Your task to perform on an android device: empty trash in google photos Image 0: 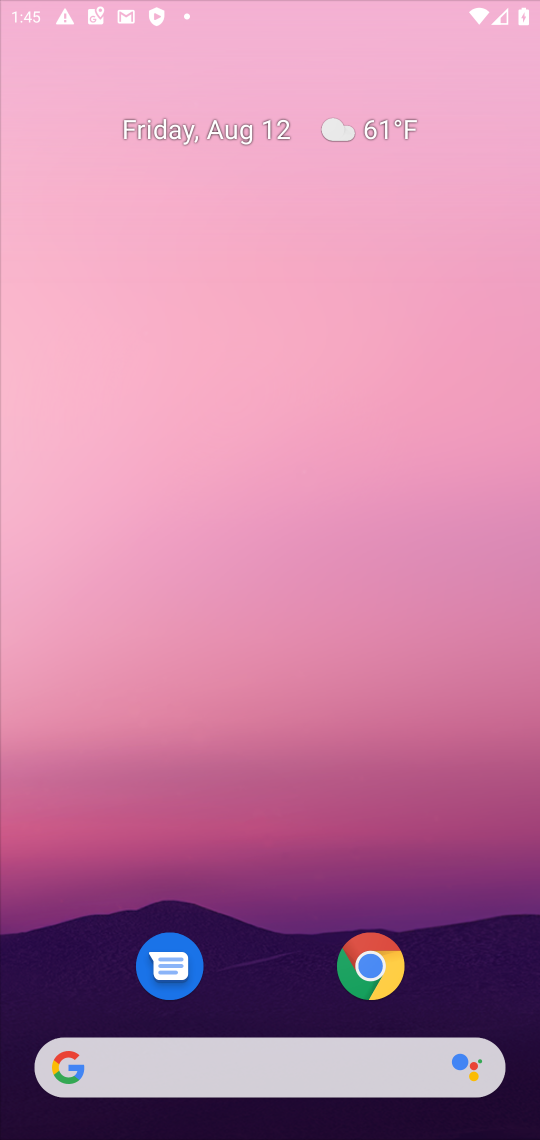
Step 0: press home button
Your task to perform on an android device: empty trash in google photos Image 1: 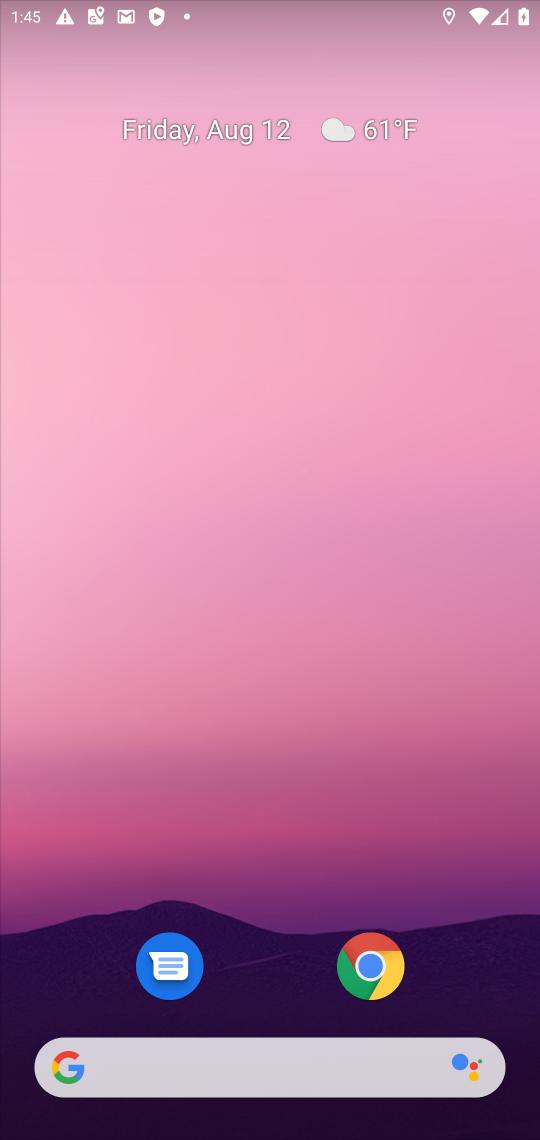
Step 1: click (377, 130)
Your task to perform on an android device: empty trash in google photos Image 2: 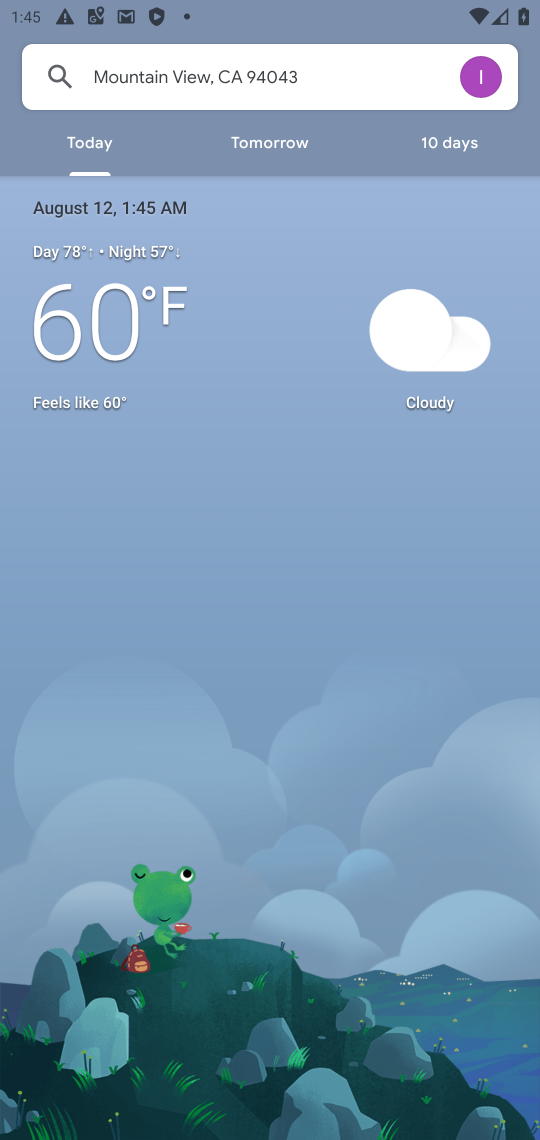
Step 2: press home button
Your task to perform on an android device: empty trash in google photos Image 3: 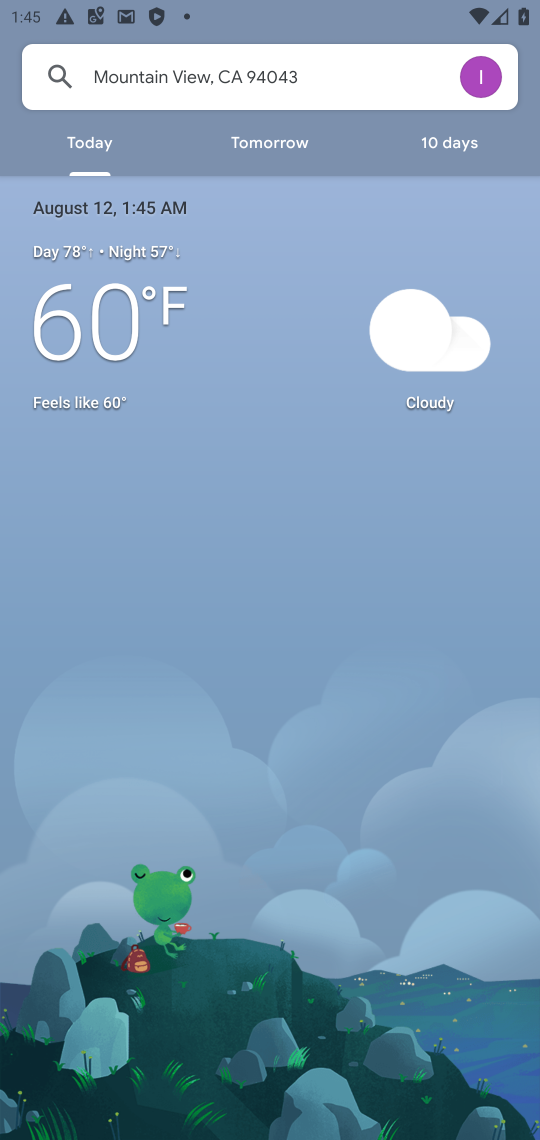
Step 3: press home button
Your task to perform on an android device: empty trash in google photos Image 4: 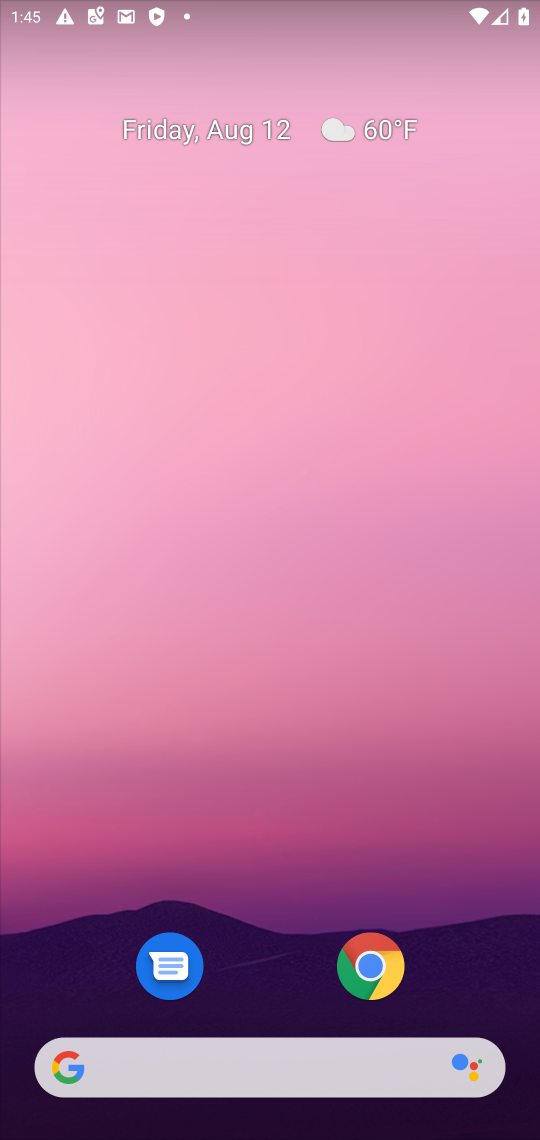
Step 4: drag from (288, 955) to (239, 160)
Your task to perform on an android device: empty trash in google photos Image 5: 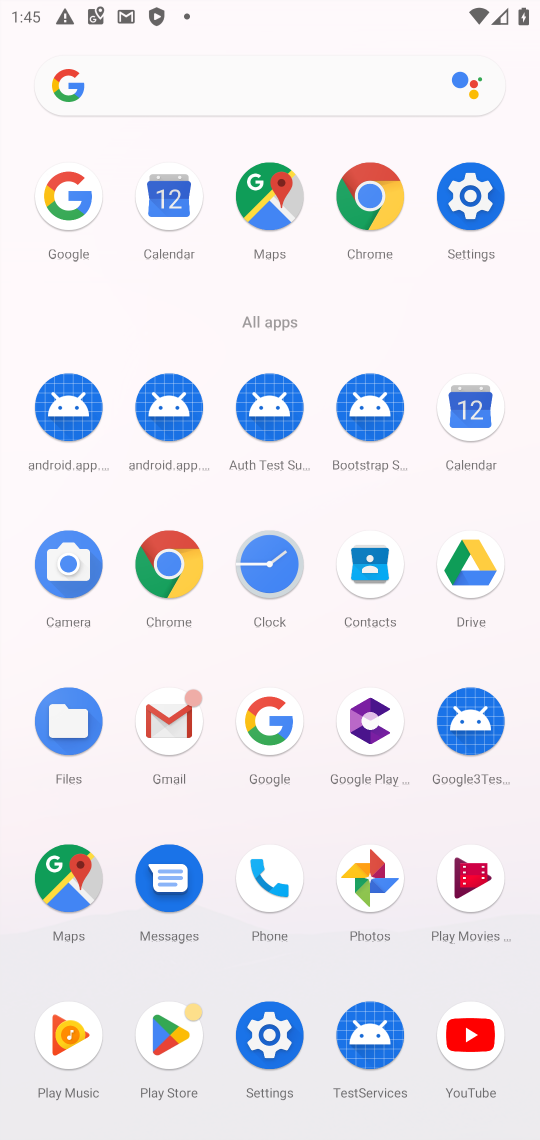
Step 5: click (382, 855)
Your task to perform on an android device: empty trash in google photos Image 6: 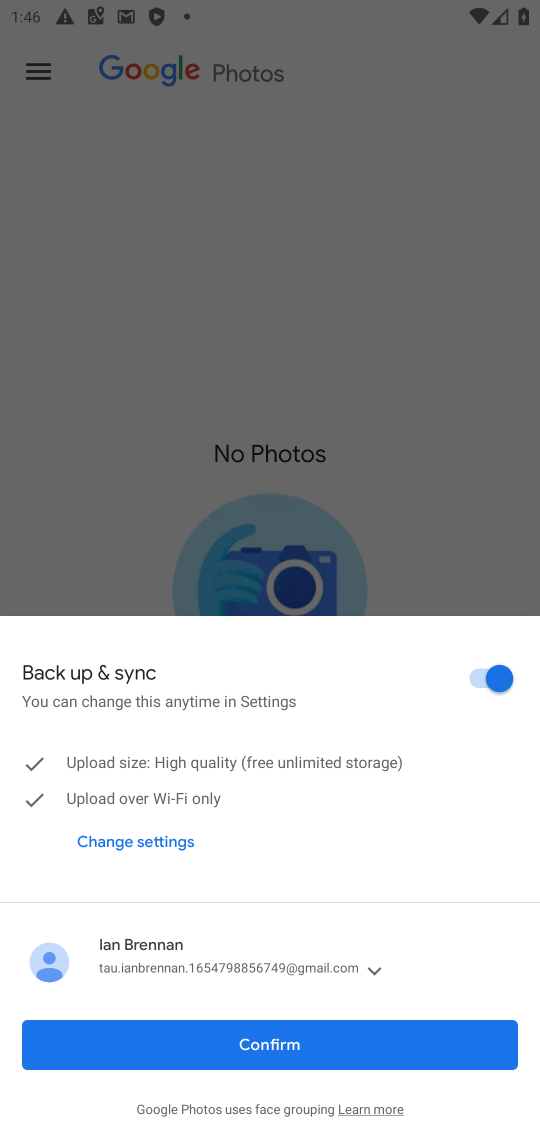
Step 6: click (167, 1038)
Your task to perform on an android device: empty trash in google photos Image 7: 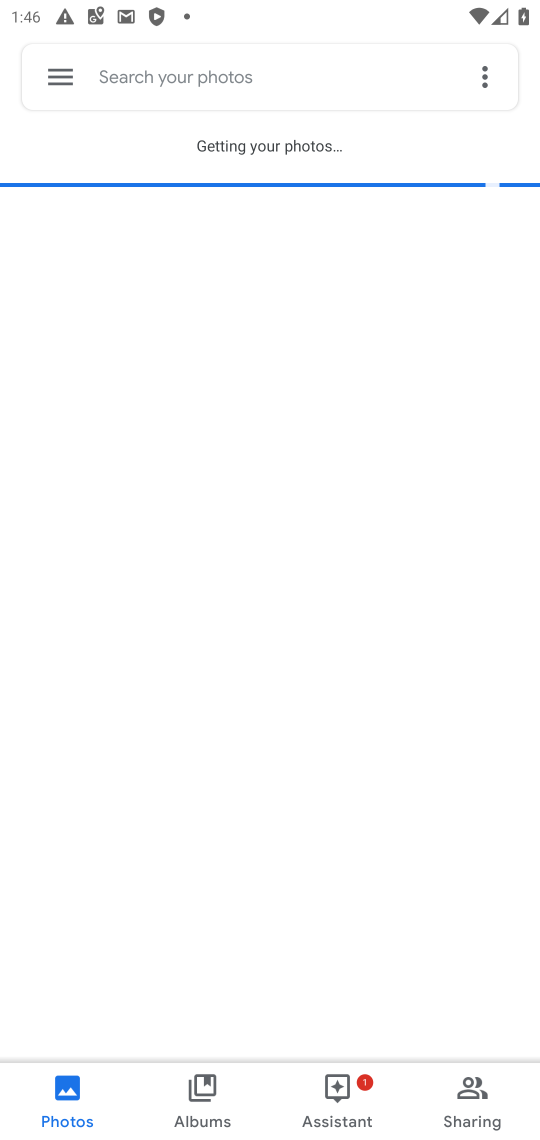
Step 7: click (61, 63)
Your task to perform on an android device: empty trash in google photos Image 8: 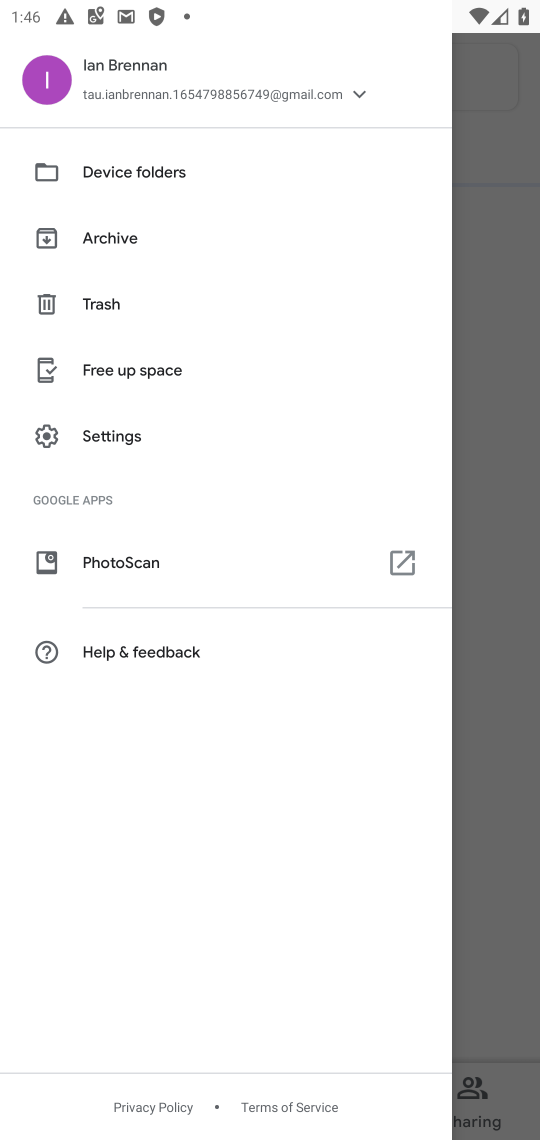
Step 8: click (118, 299)
Your task to perform on an android device: empty trash in google photos Image 9: 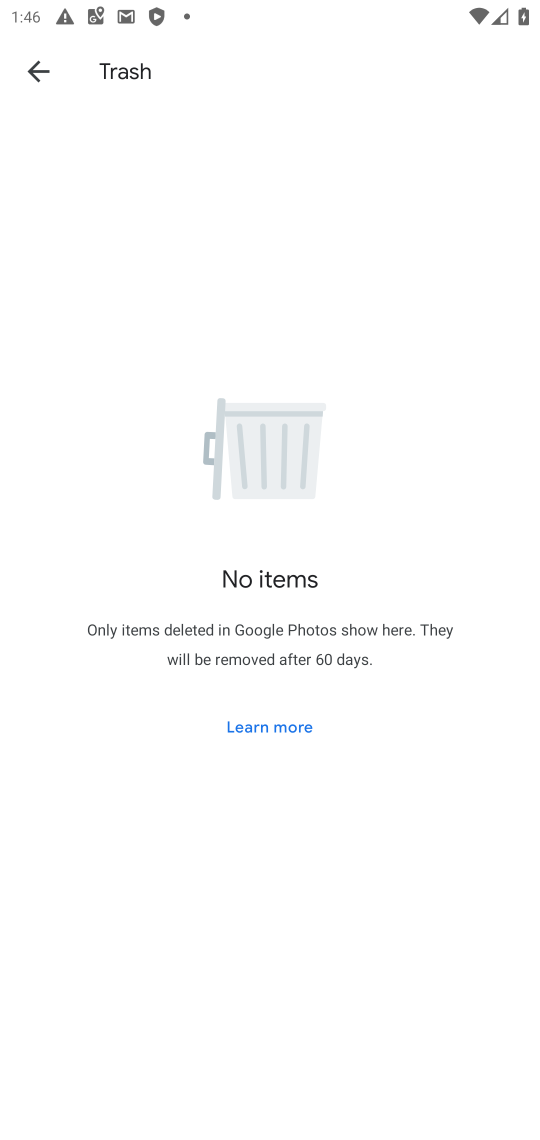
Step 9: task complete